Your task to perform on an android device: Clear the shopping cart on bestbuy.com. Search for "usb-c to usb-a" on bestbuy.com, select the first entry, add it to the cart, then select checkout. Image 0: 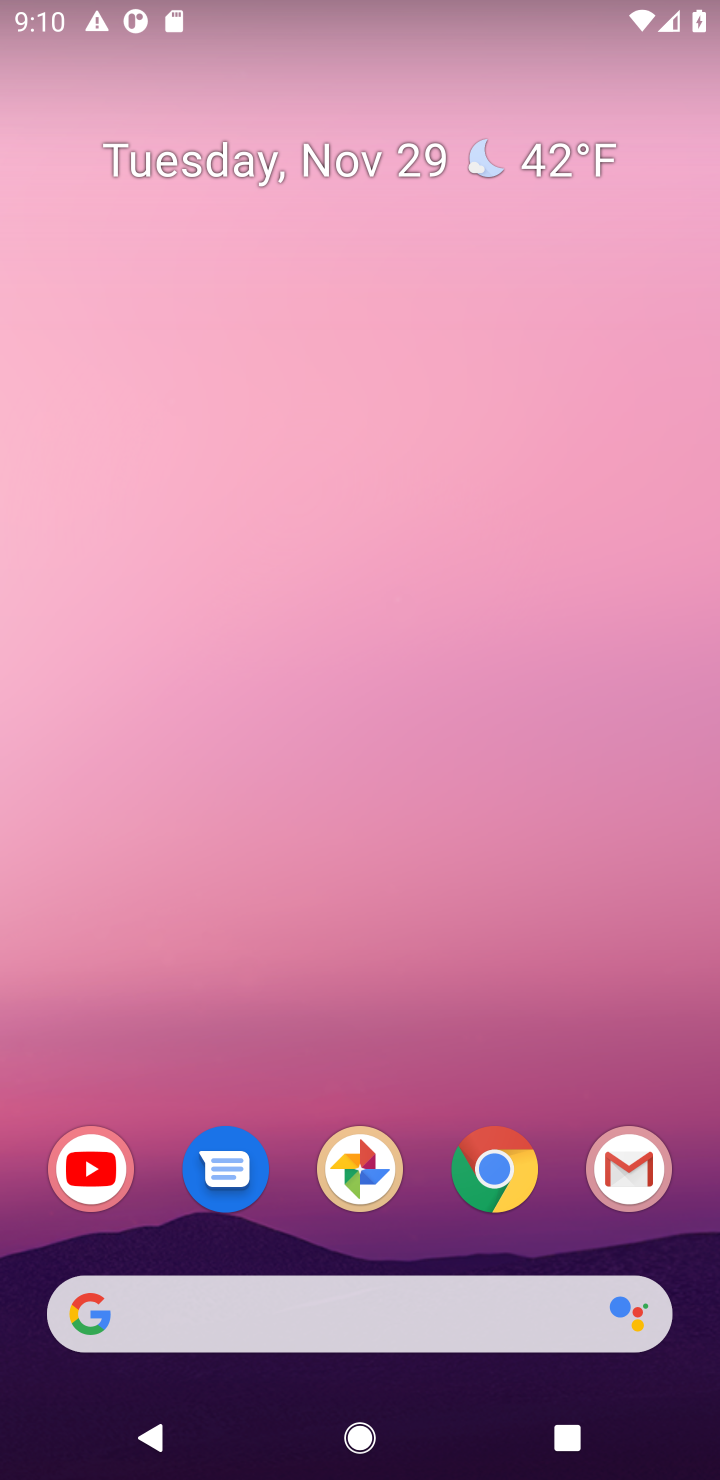
Step 0: click (495, 1297)
Your task to perform on an android device: Clear the shopping cart on bestbuy.com. Search for "usb-c to usb-a" on bestbuy.com, select the first entry, add it to the cart, then select checkout. Image 1: 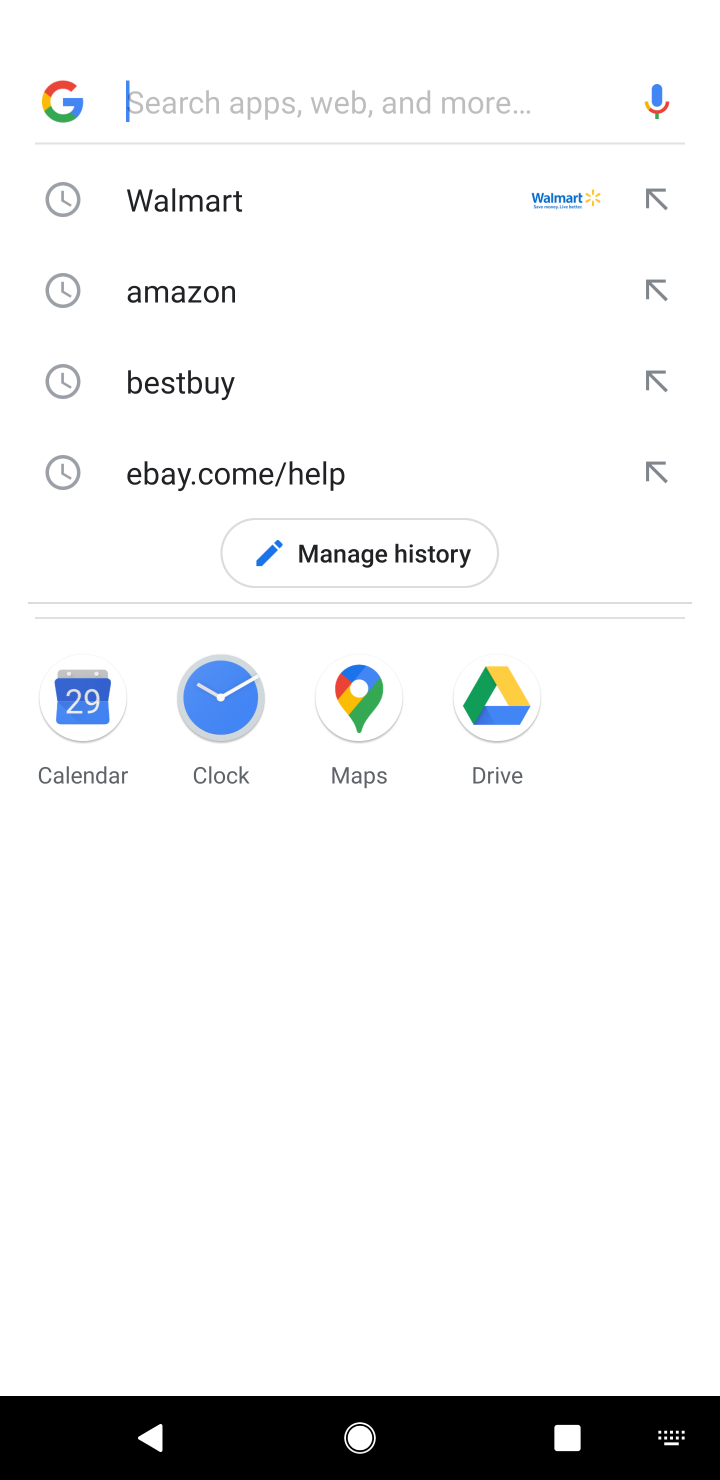
Step 1: type "bestbuy"
Your task to perform on an android device: Clear the shopping cart on bestbuy.com. Search for "usb-c to usb-a" on bestbuy.com, select the first entry, add it to the cart, then select checkout. Image 2: 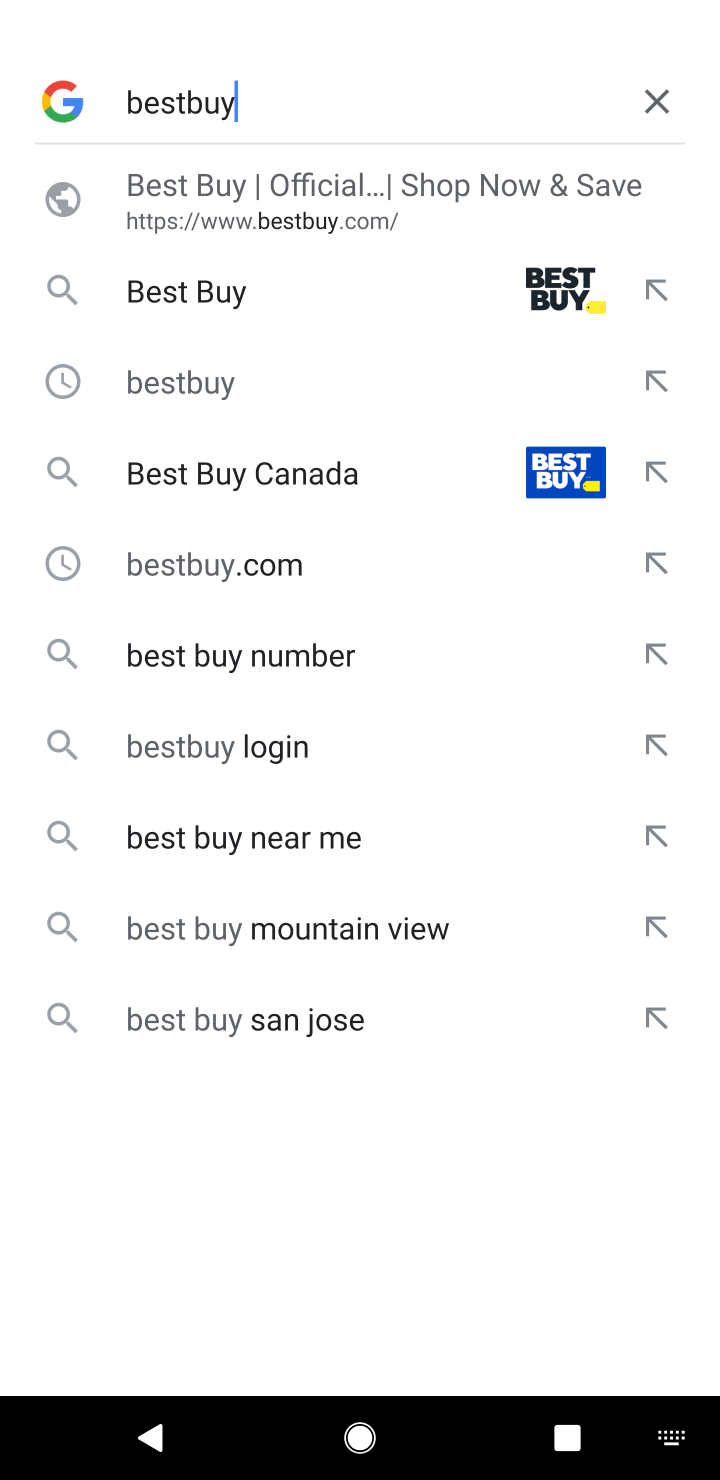
Step 2: click (352, 173)
Your task to perform on an android device: Clear the shopping cart on bestbuy.com. Search for "usb-c to usb-a" on bestbuy.com, select the first entry, add it to the cart, then select checkout. Image 3: 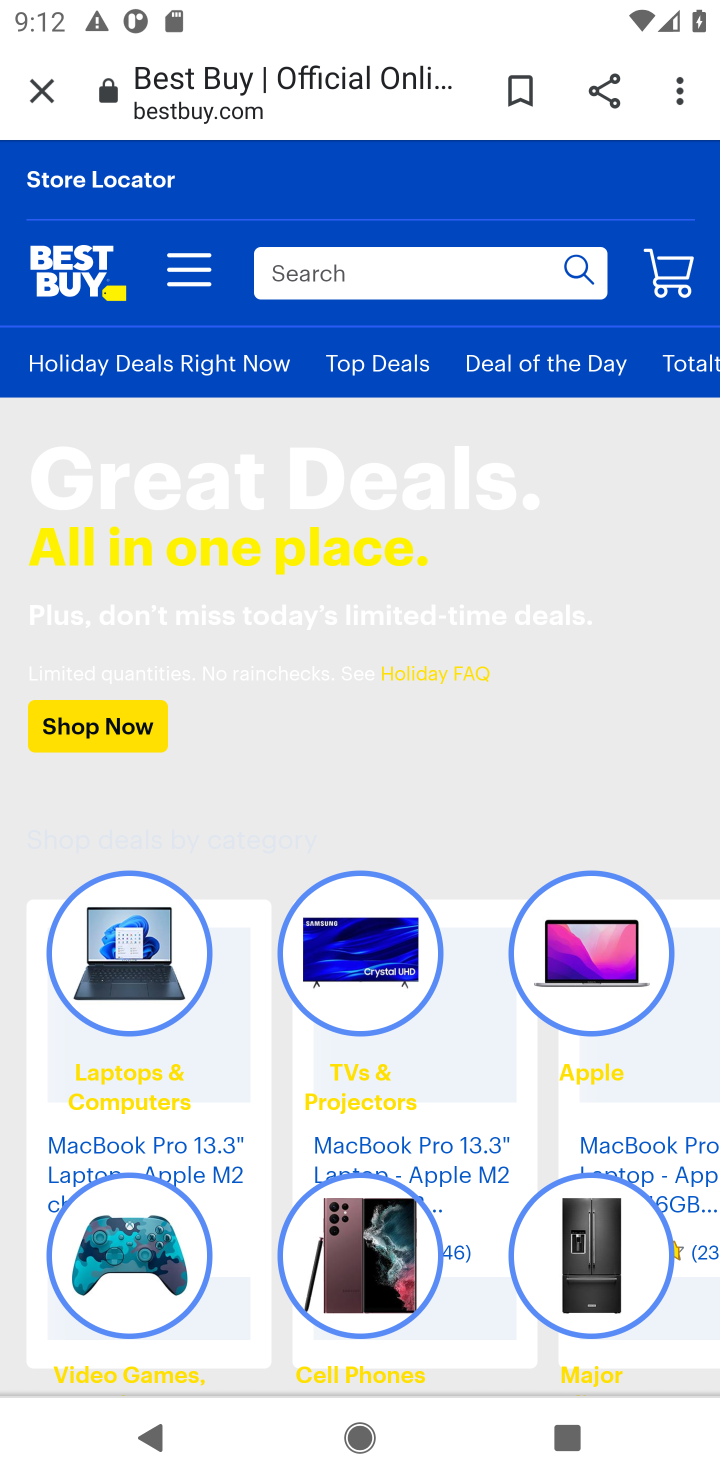
Step 3: click (345, 264)
Your task to perform on an android device: Clear the shopping cart on bestbuy.com. Search for "usb-c to usb-a" on bestbuy.com, select the first entry, add it to the cart, then select checkout. Image 4: 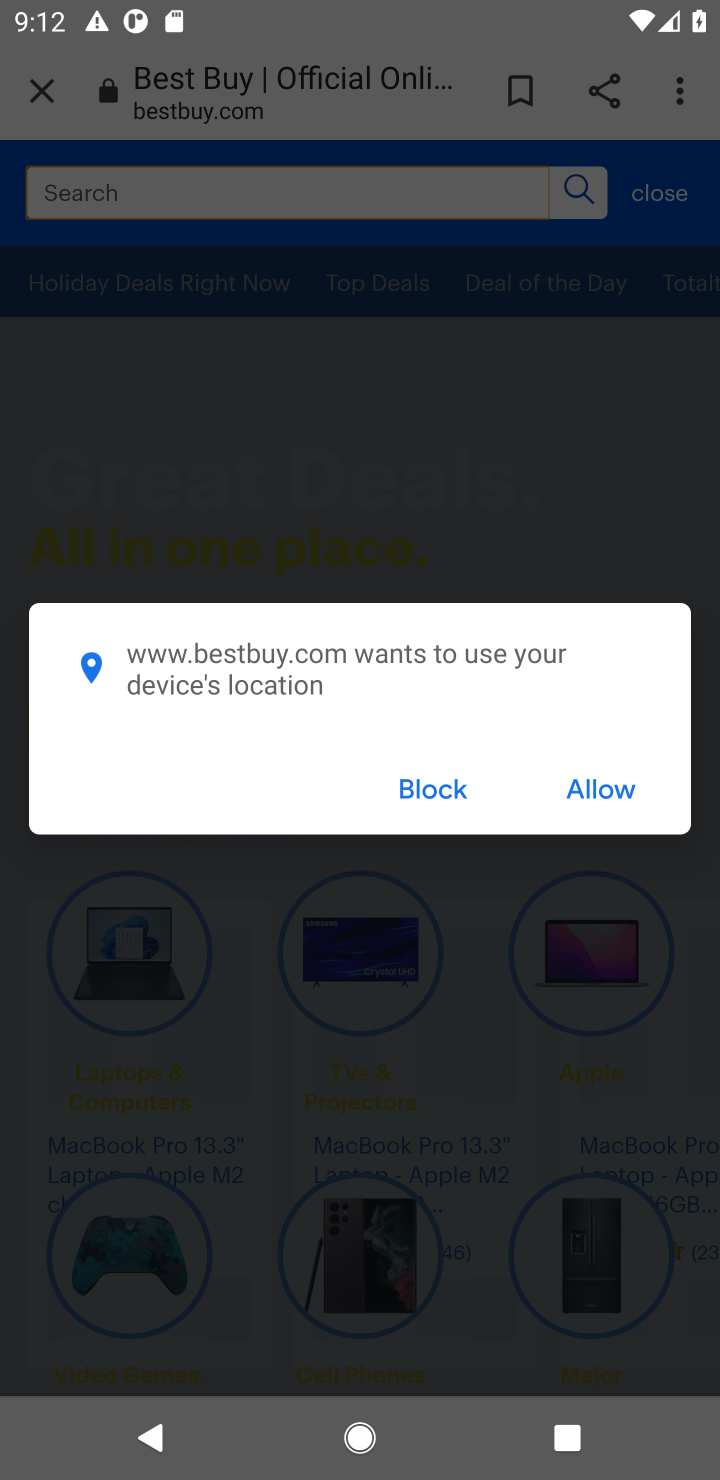
Step 4: type "usb-"
Your task to perform on an android device: Clear the shopping cart on bestbuy.com. Search for "usb-c to usb-a" on bestbuy.com, select the first entry, add it to the cart, then select checkout. Image 5: 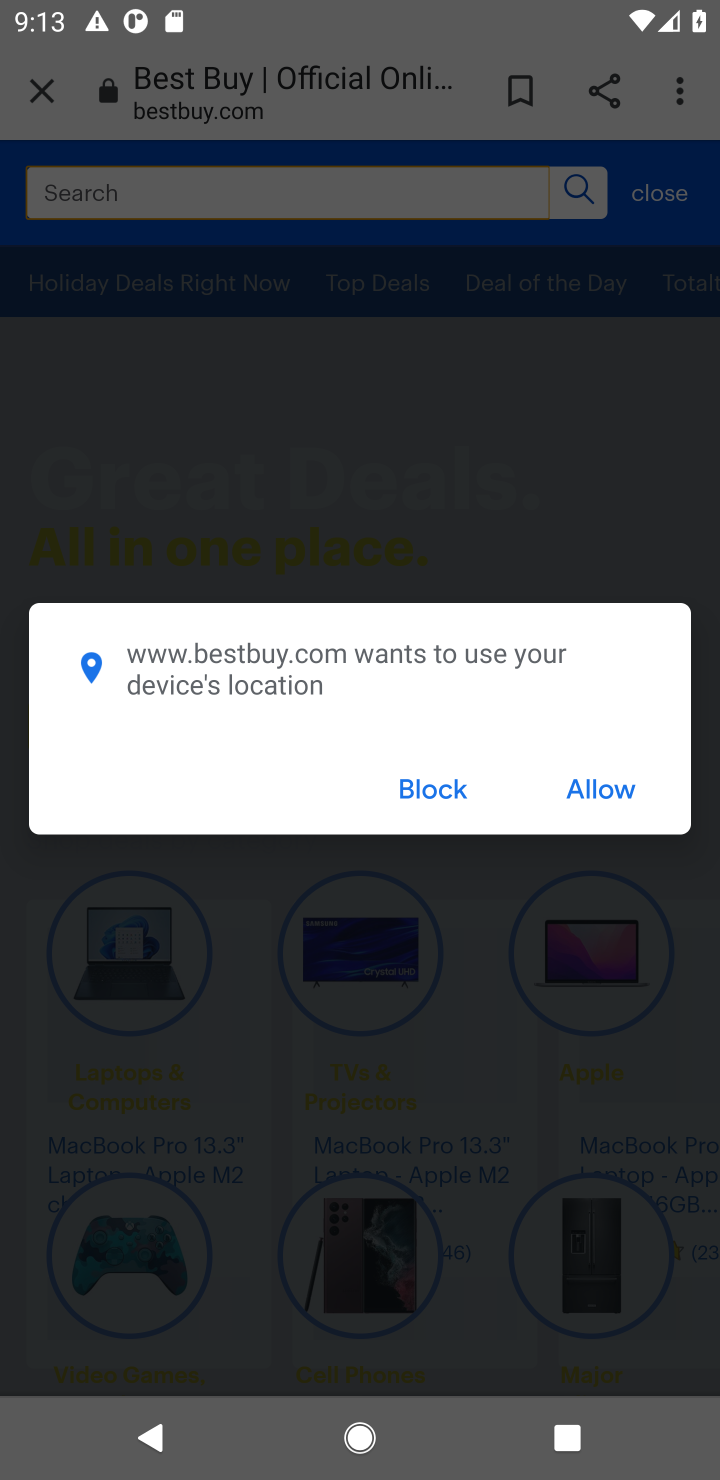
Step 5: click (392, 794)
Your task to perform on an android device: Clear the shopping cart on bestbuy.com. Search for "usb-c to usb-a" on bestbuy.com, select the first entry, add it to the cart, then select checkout. Image 6: 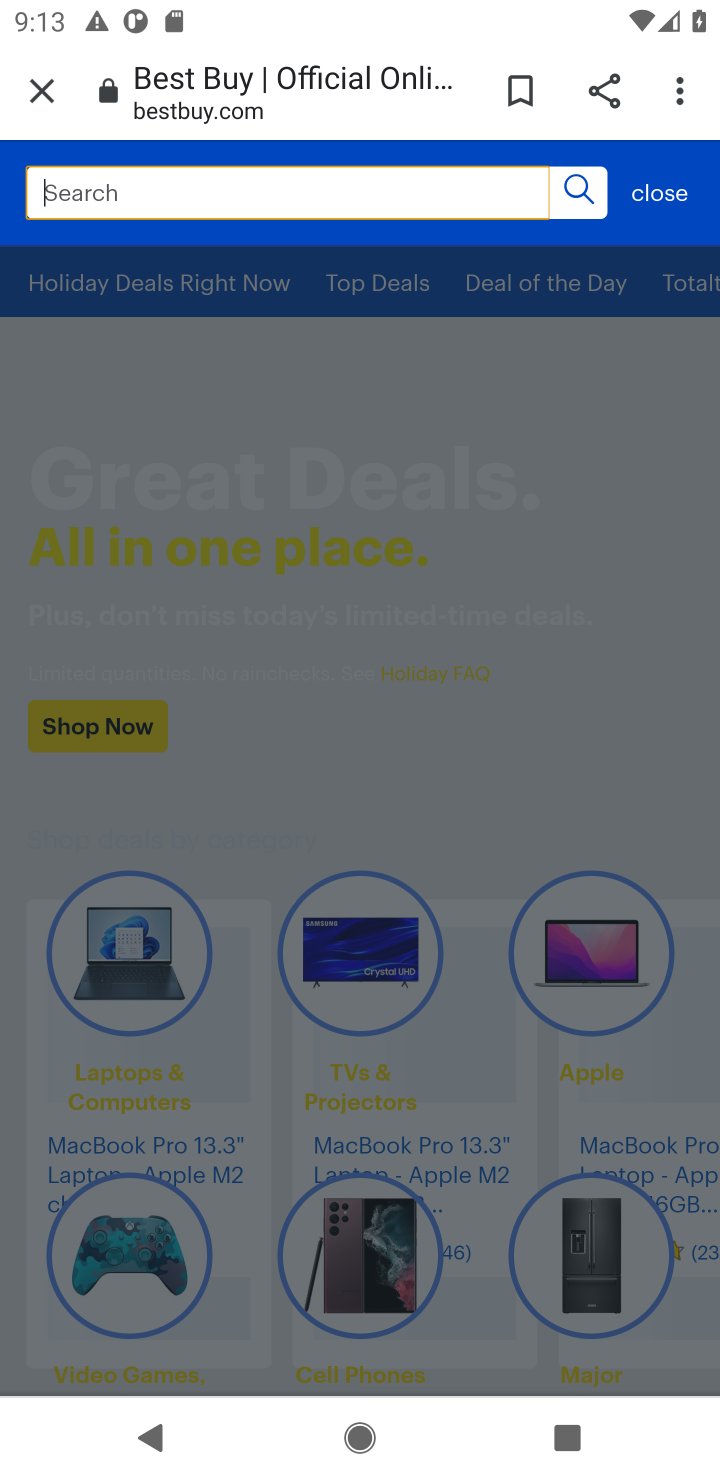
Step 6: task complete